Your task to perform on an android device: change the clock display to show seconds Image 0: 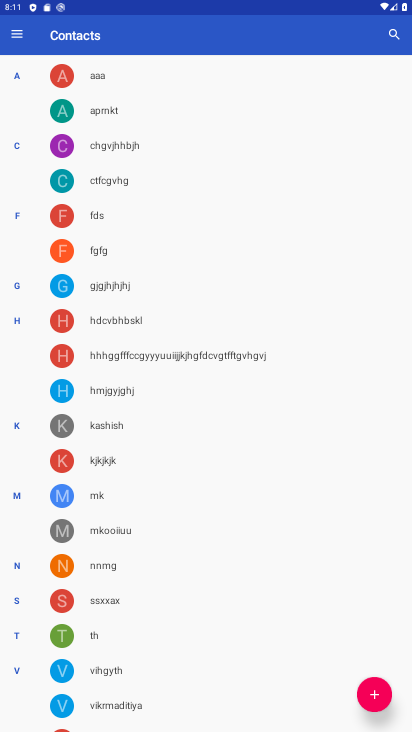
Step 0: press home button
Your task to perform on an android device: change the clock display to show seconds Image 1: 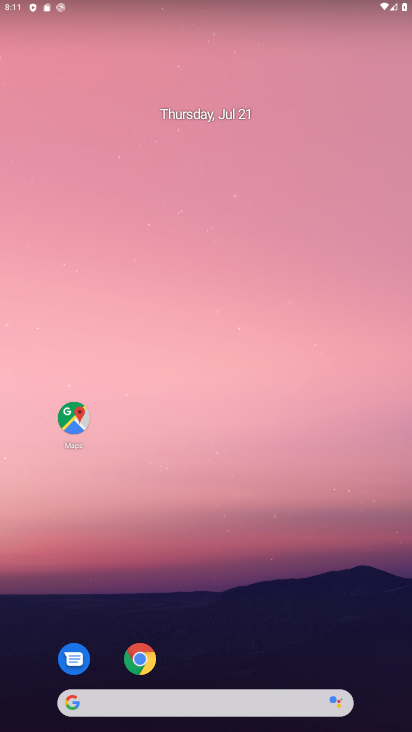
Step 1: drag from (217, 668) to (267, 99)
Your task to perform on an android device: change the clock display to show seconds Image 2: 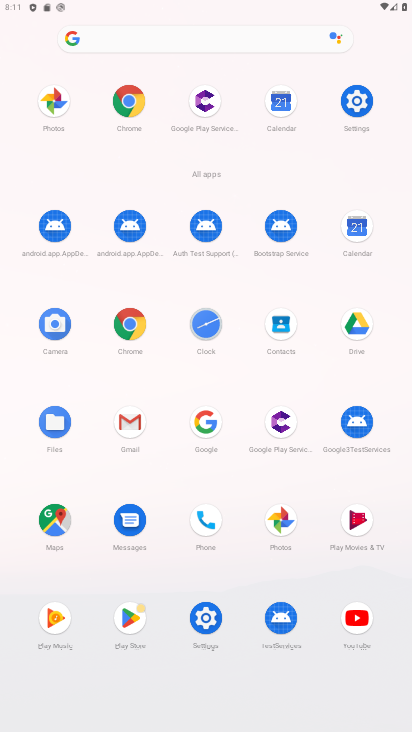
Step 2: click (202, 323)
Your task to perform on an android device: change the clock display to show seconds Image 3: 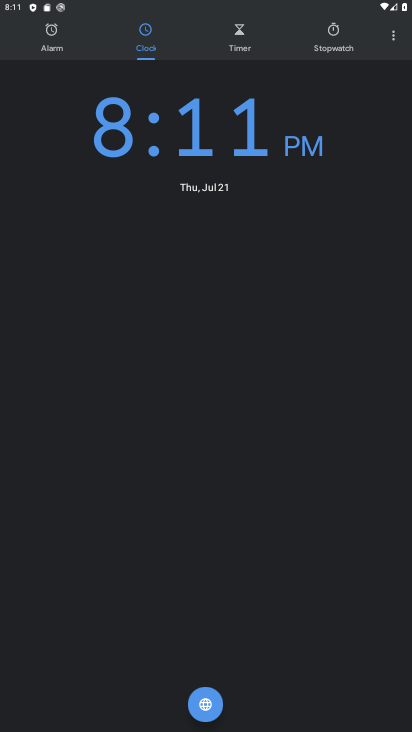
Step 3: click (395, 38)
Your task to perform on an android device: change the clock display to show seconds Image 4: 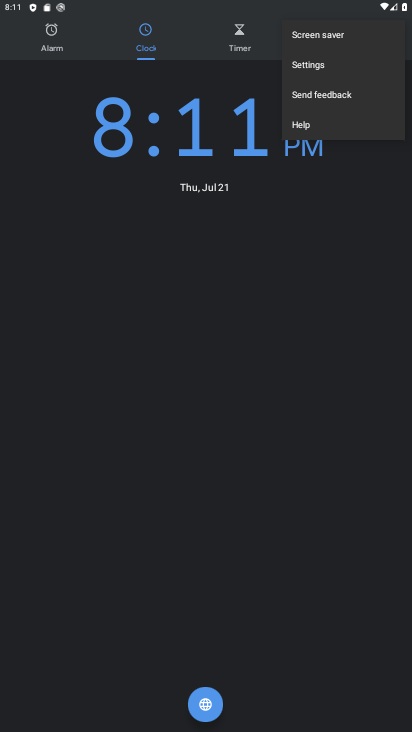
Step 4: click (328, 66)
Your task to perform on an android device: change the clock display to show seconds Image 5: 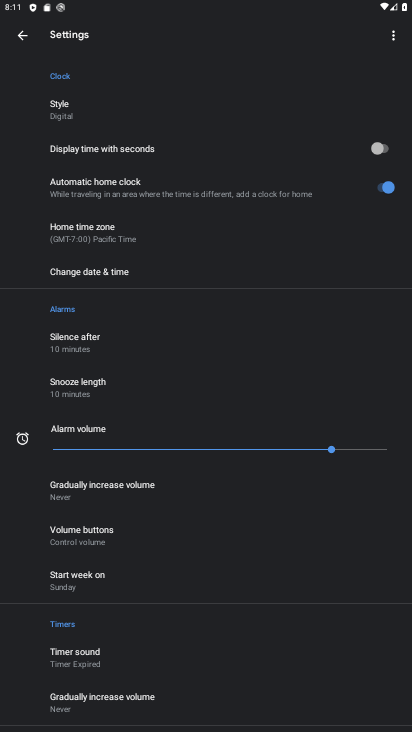
Step 5: click (375, 150)
Your task to perform on an android device: change the clock display to show seconds Image 6: 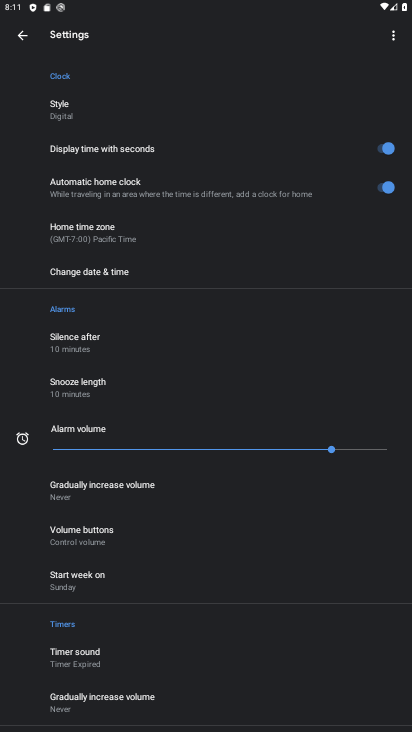
Step 6: task complete